Your task to perform on an android device: Open Chrome and go to settings Image 0: 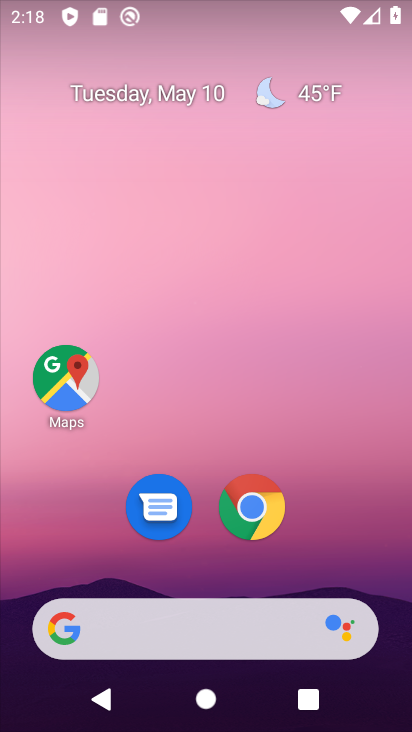
Step 0: click (243, 509)
Your task to perform on an android device: Open Chrome and go to settings Image 1: 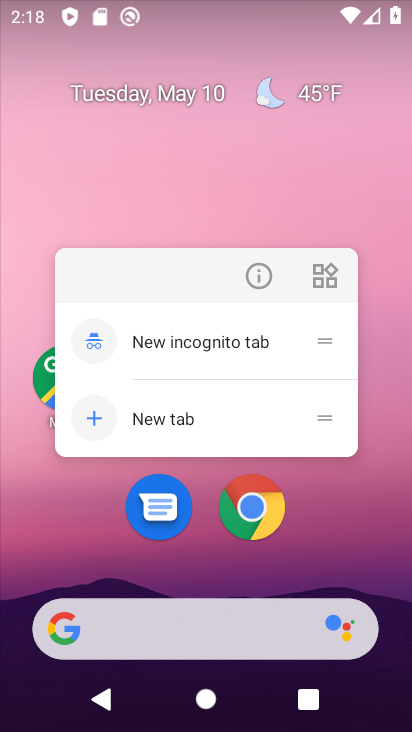
Step 1: click (247, 509)
Your task to perform on an android device: Open Chrome and go to settings Image 2: 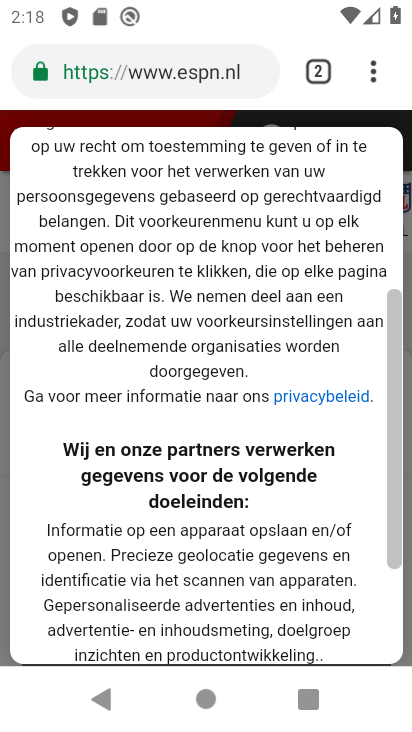
Step 2: click (369, 77)
Your task to perform on an android device: Open Chrome and go to settings Image 3: 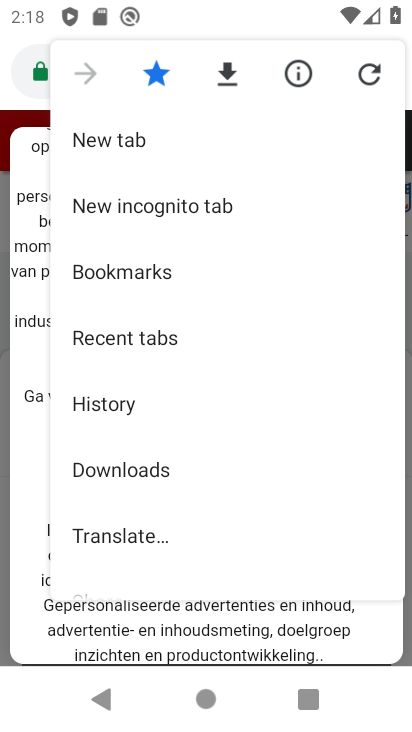
Step 3: drag from (159, 557) to (170, 244)
Your task to perform on an android device: Open Chrome and go to settings Image 4: 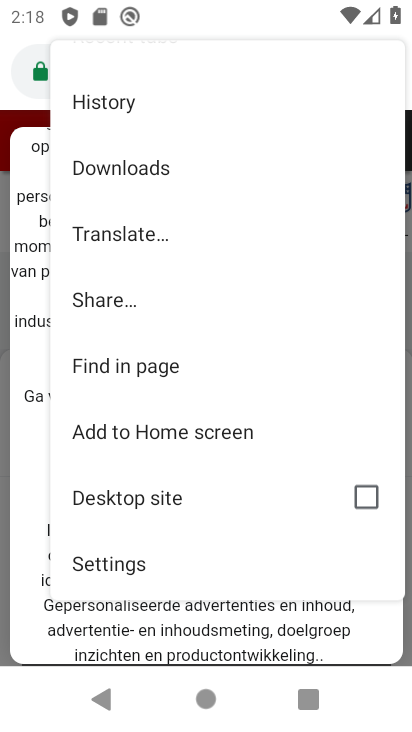
Step 4: click (85, 554)
Your task to perform on an android device: Open Chrome and go to settings Image 5: 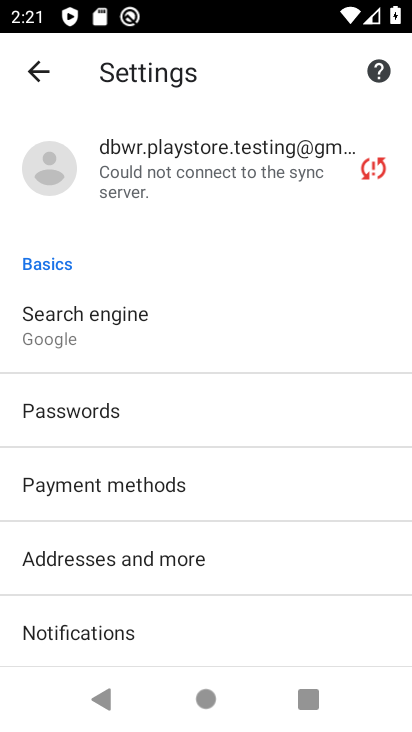
Step 5: task complete